Your task to perform on an android device: Search for sushi restaurants on Maps Image 0: 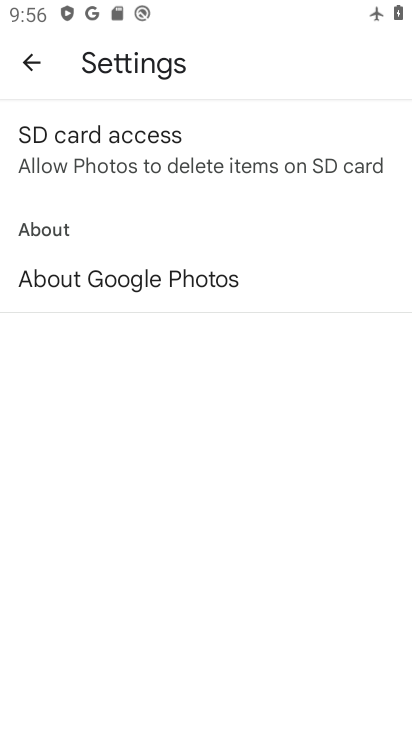
Step 0: press back button
Your task to perform on an android device: Search for sushi restaurants on Maps Image 1: 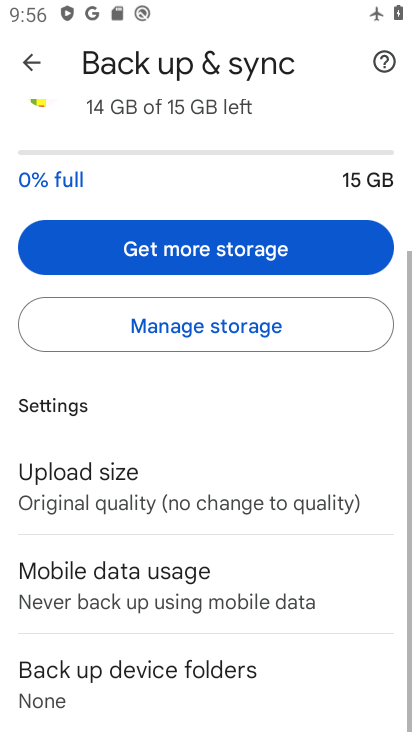
Step 1: press home button
Your task to perform on an android device: Search for sushi restaurants on Maps Image 2: 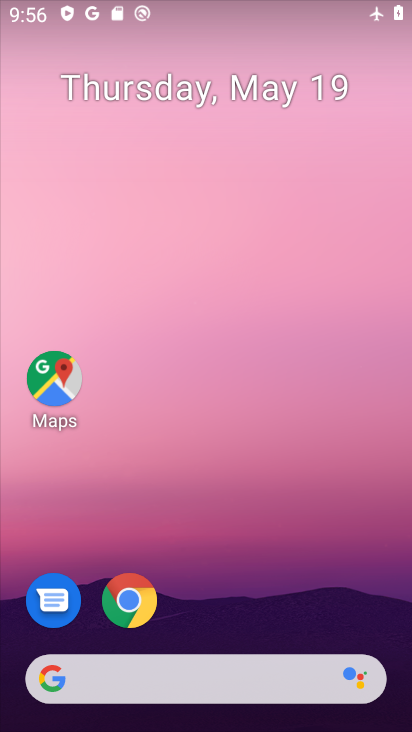
Step 2: drag from (236, 593) to (240, 30)
Your task to perform on an android device: Search for sushi restaurants on Maps Image 3: 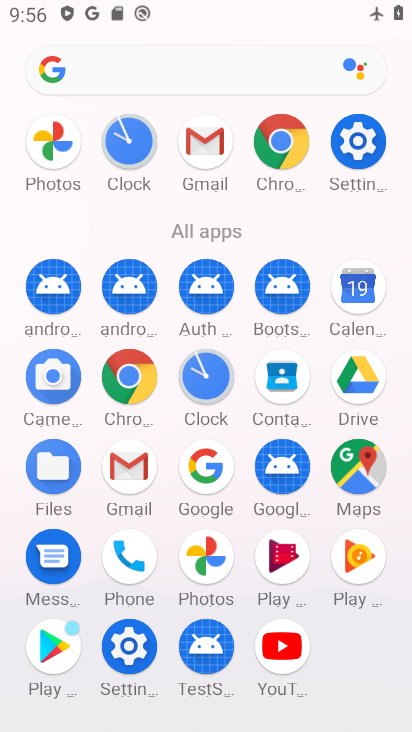
Step 3: click (358, 461)
Your task to perform on an android device: Search for sushi restaurants on Maps Image 4: 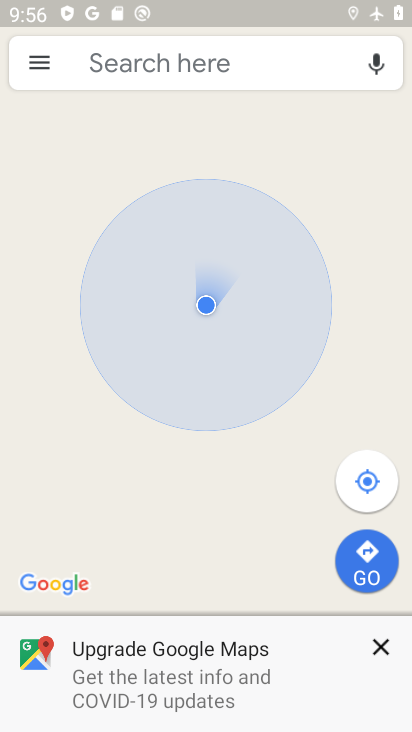
Step 4: click (262, 63)
Your task to perform on an android device: Search for sushi restaurants on Maps Image 5: 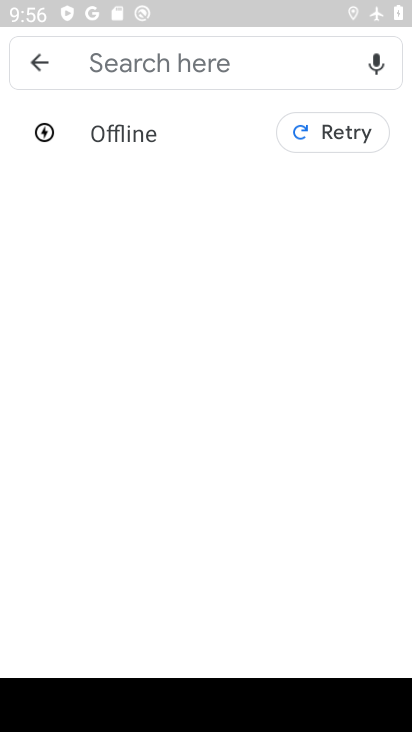
Step 5: type "sushi restaurants"
Your task to perform on an android device: Search for sushi restaurants on Maps Image 6: 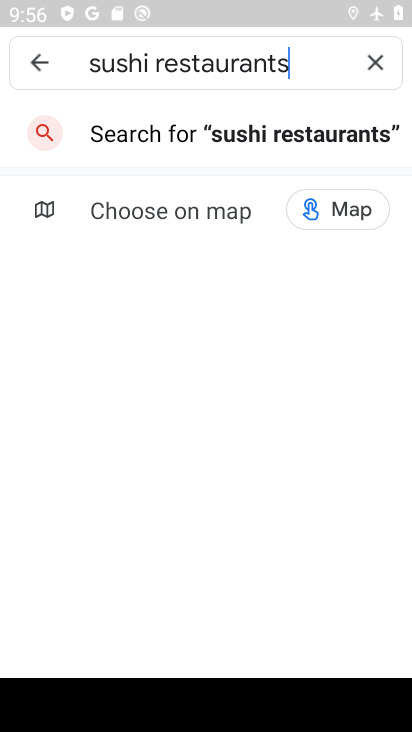
Step 6: click (247, 143)
Your task to perform on an android device: Search for sushi restaurants on Maps Image 7: 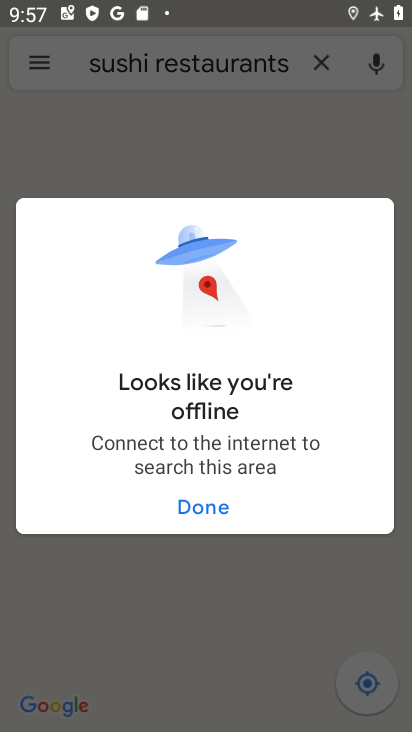
Step 7: task complete